Your task to perform on an android device: change the clock display to analog Image 0: 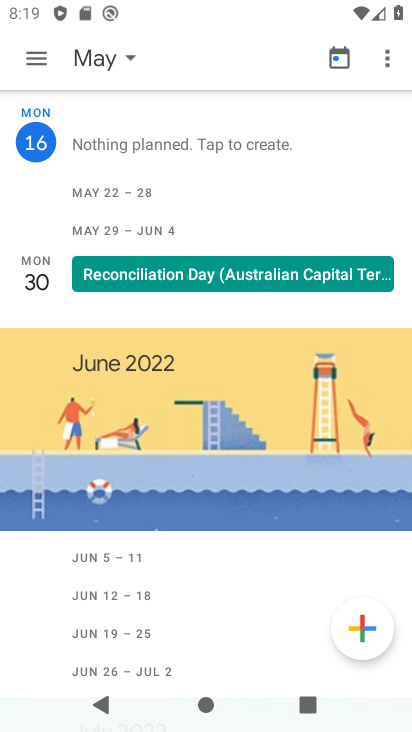
Step 0: press home button
Your task to perform on an android device: change the clock display to analog Image 1: 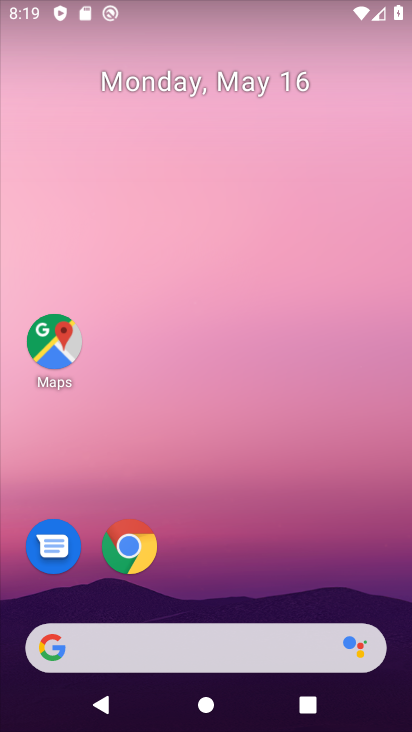
Step 1: drag from (315, 549) to (210, 2)
Your task to perform on an android device: change the clock display to analog Image 2: 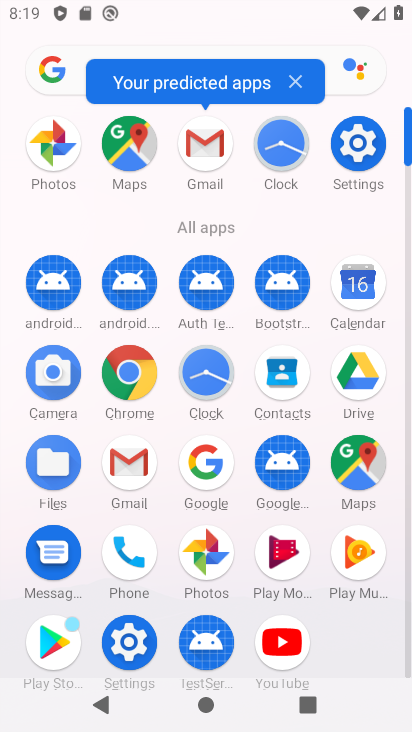
Step 2: click (217, 360)
Your task to perform on an android device: change the clock display to analog Image 3: 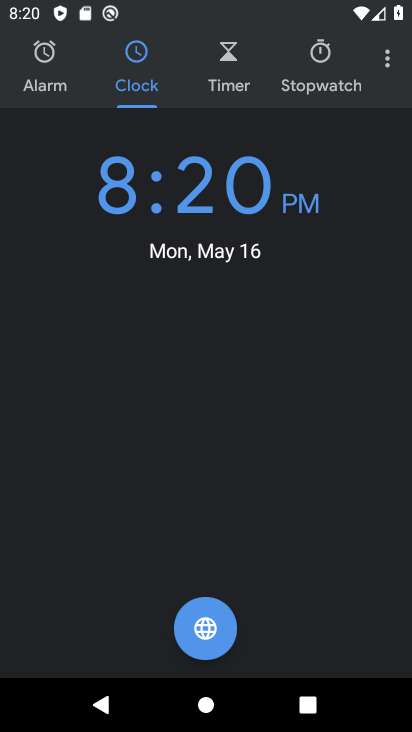
Step 3: click (393, 62)
Your task to perform on an android device: change the clock display to analog Image 4: 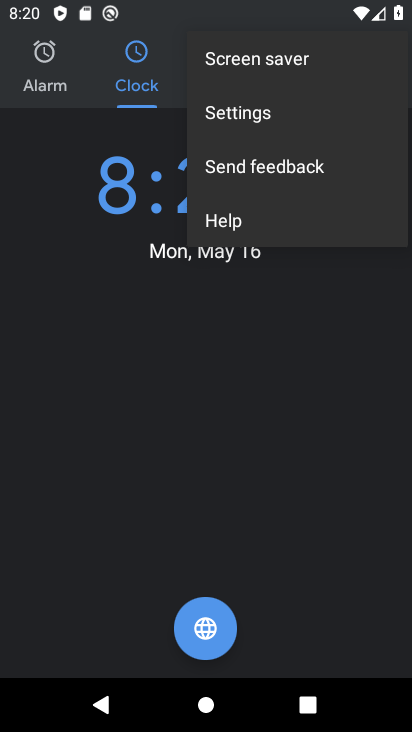
Step 4: click (243, 117)
Your task to perform on an android device: change the clock display to analog Image 5: 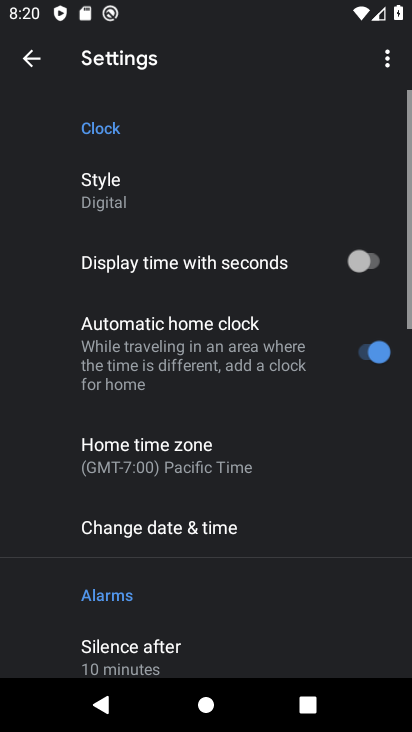
Step 5: click (218, 187)
Your task to perform on an android device: change the clock display to analog Image 6: 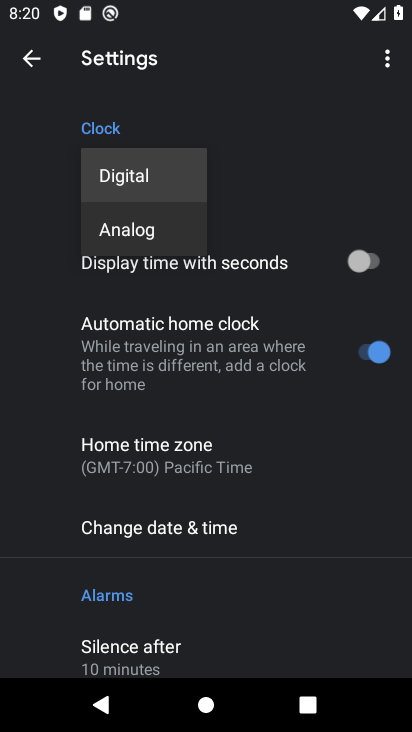
Step 6: click (134, 238)
Your task to perform on an android device: change the clock display to analog Image 7: 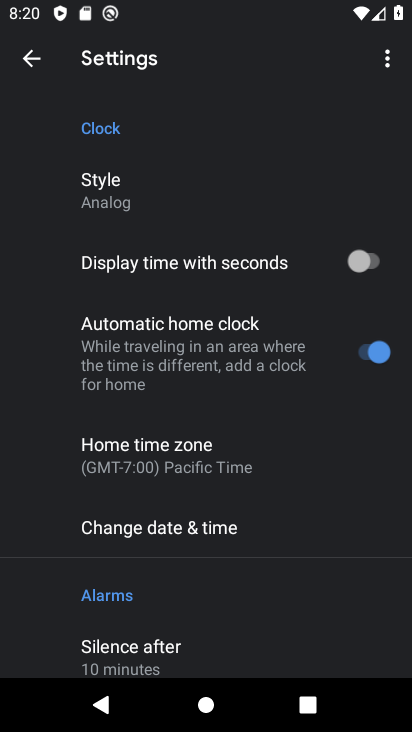
Step 7: task complete